Your task to perform on an android device: Go to Amazon Image 0: 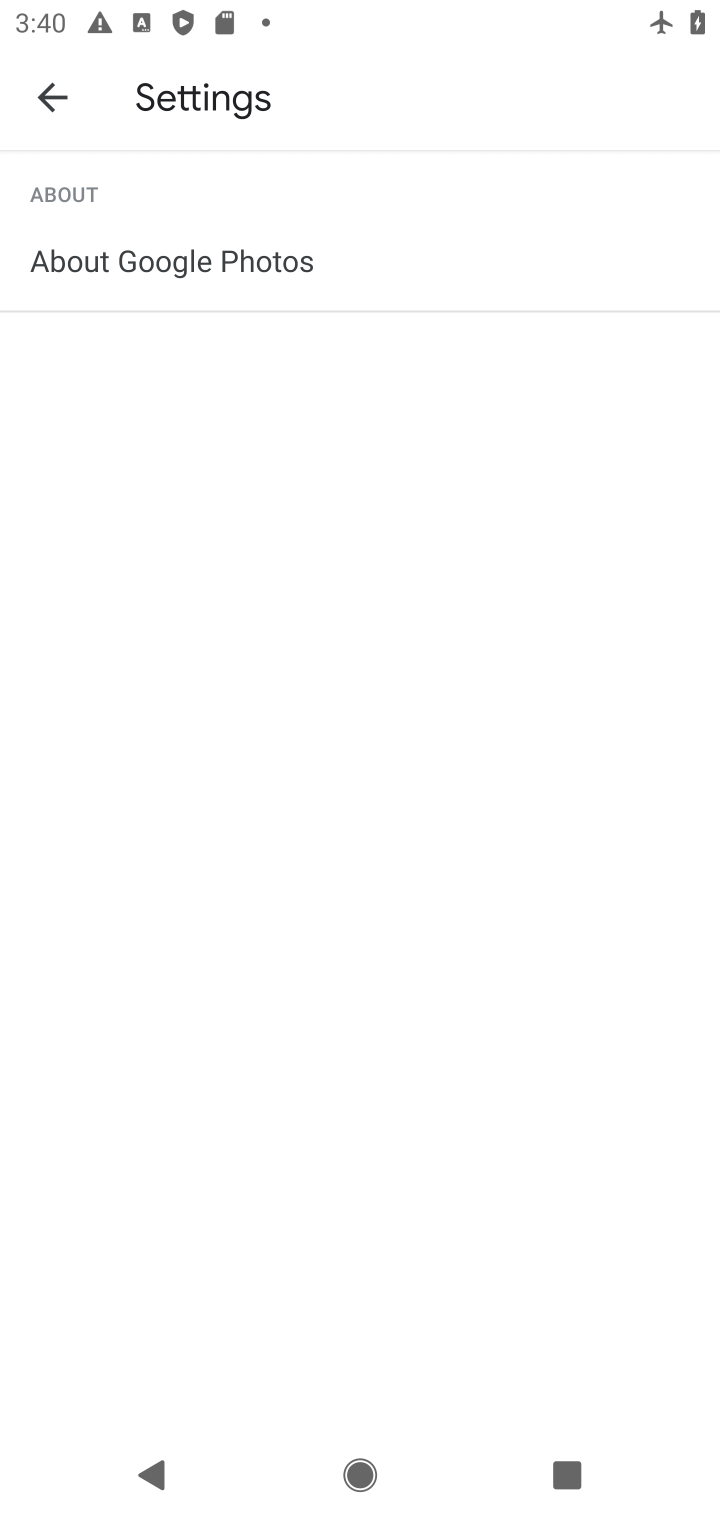
Step 0: press home button
Your task to perform on an android device: Go to Amazon Image 1: 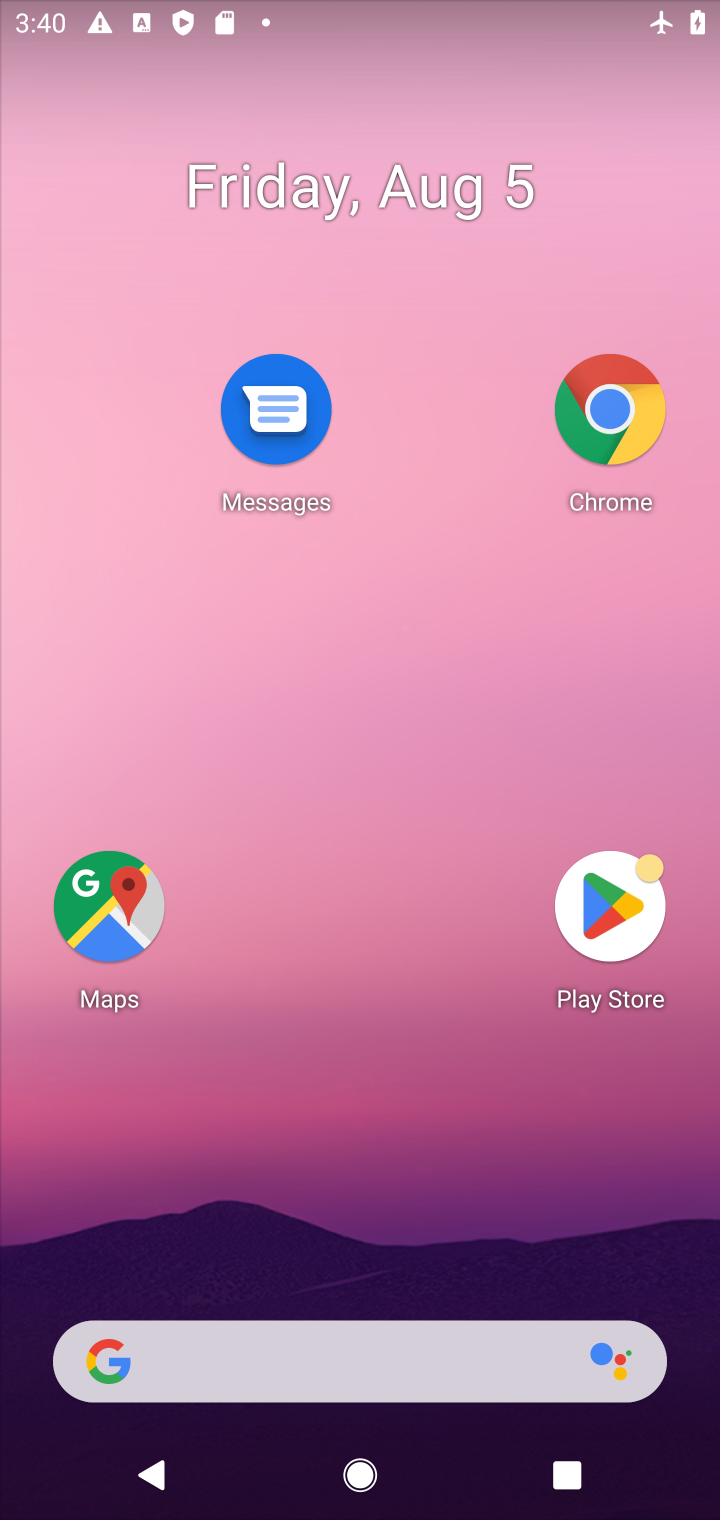
Step 1: click (600, 444)
Your task to perform on an android device: Go to Amazon Image 2: 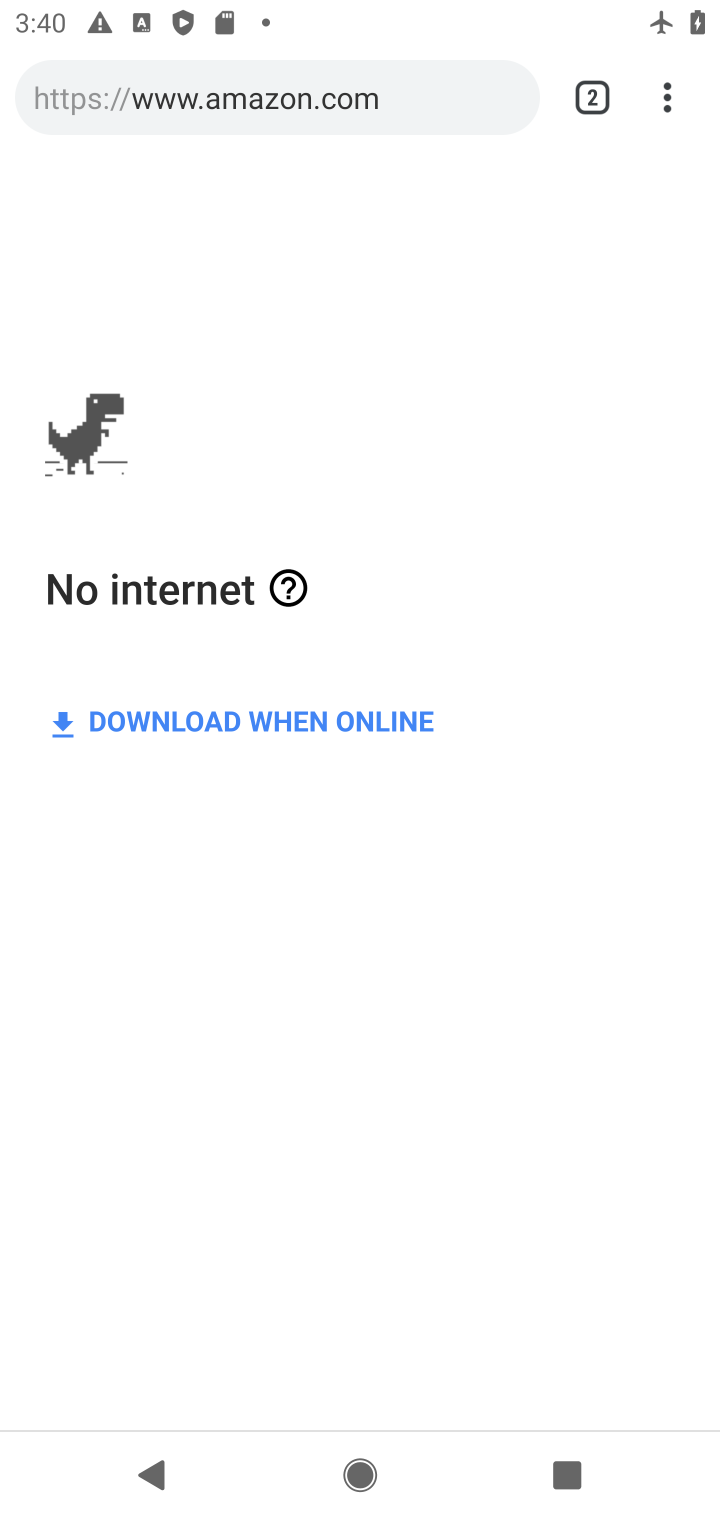
Step 2: click (603, 101)
Your task to perform on an android device: Go to Amazon Image 3: 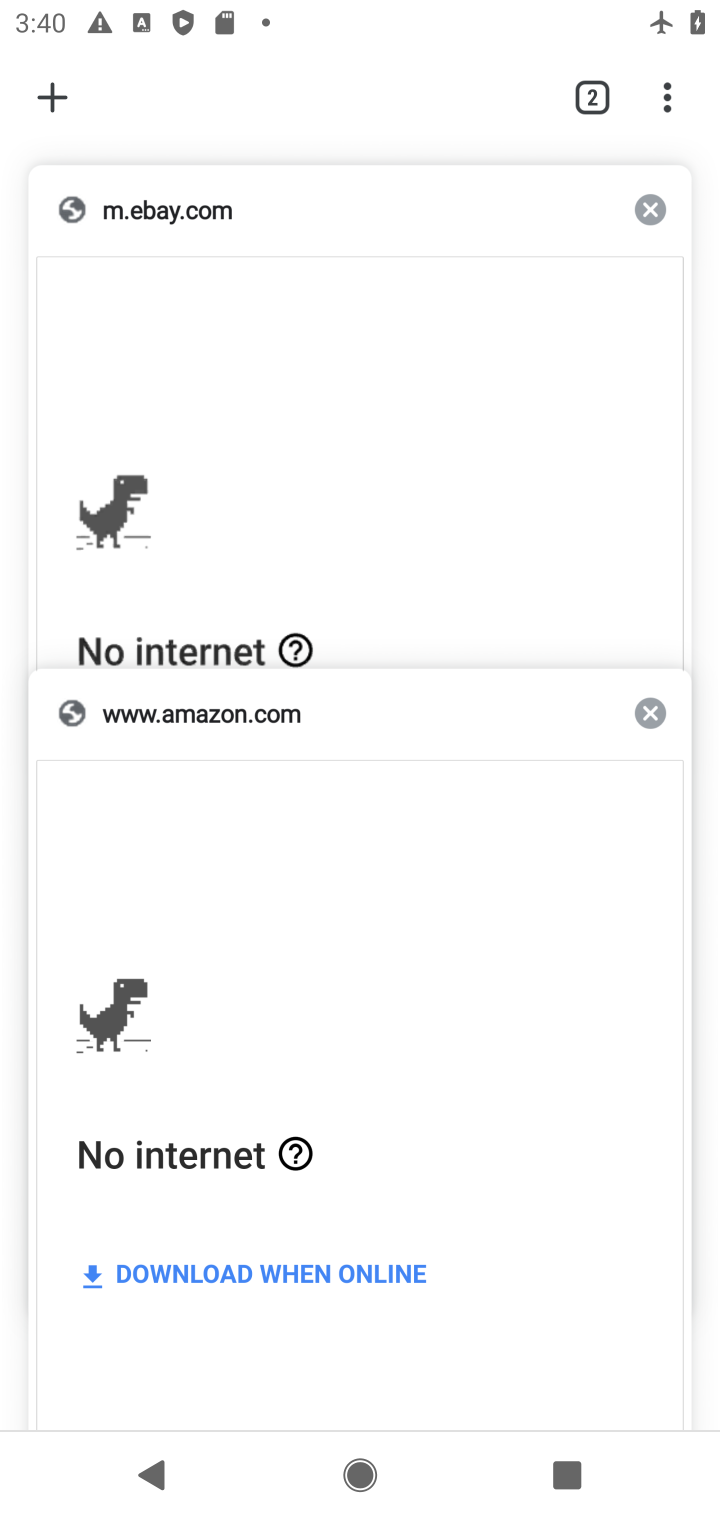
Step 3: task complete